Your task to perform on an android device: open app "Roku - Official Remote Control" (install if not already installed) Image 0: 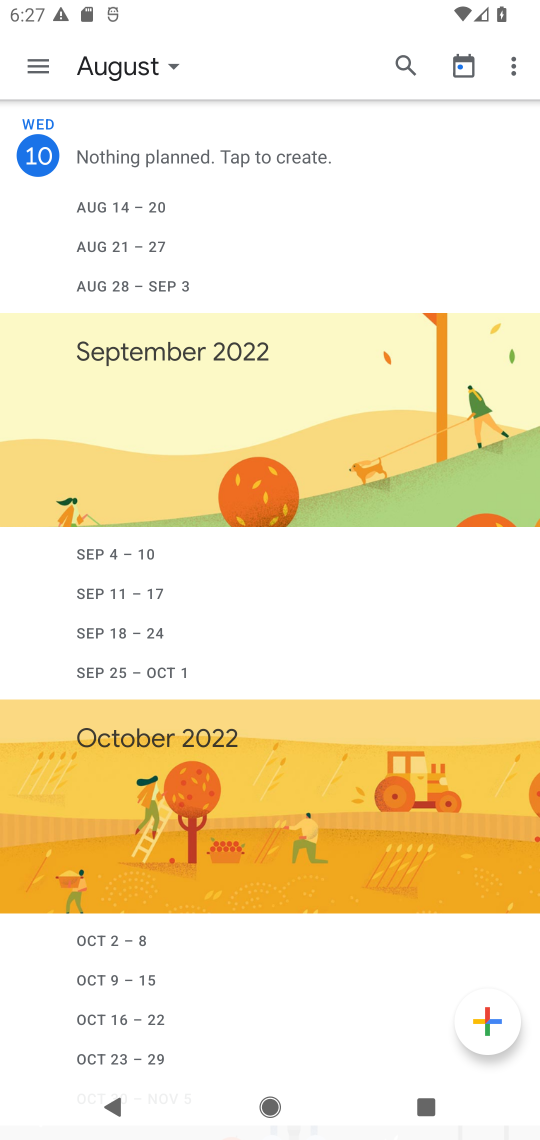
Step 0: press home button
Your task to perform on an android device: open app "Roku - Official Remote Control" (install if not already installed) Image 1: 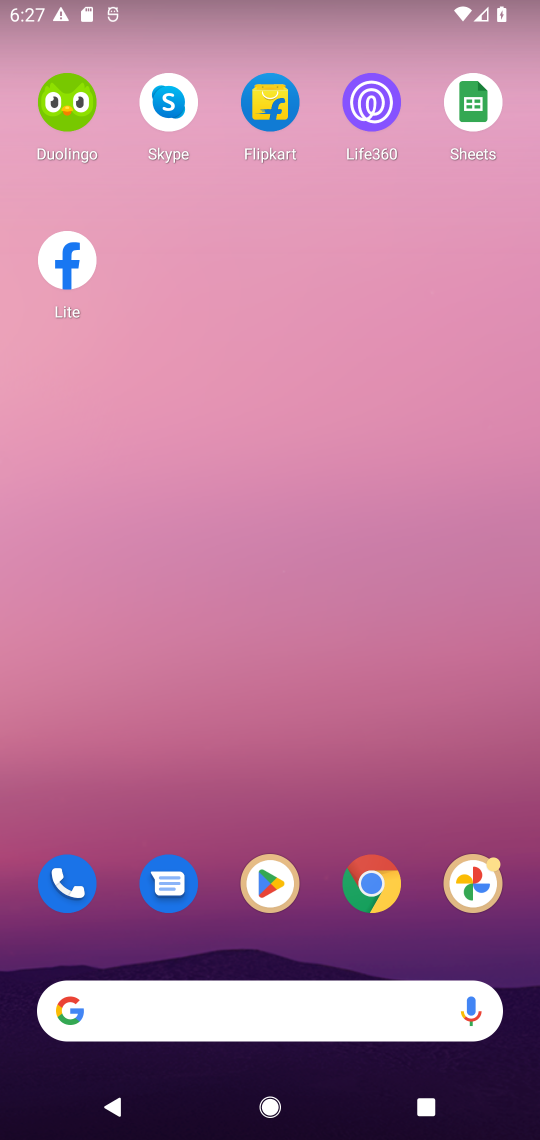
Step 1: press home button
Your task to perform on an android device: open app "Roku - Official Remote Control" (install if not already installed) Image 2: 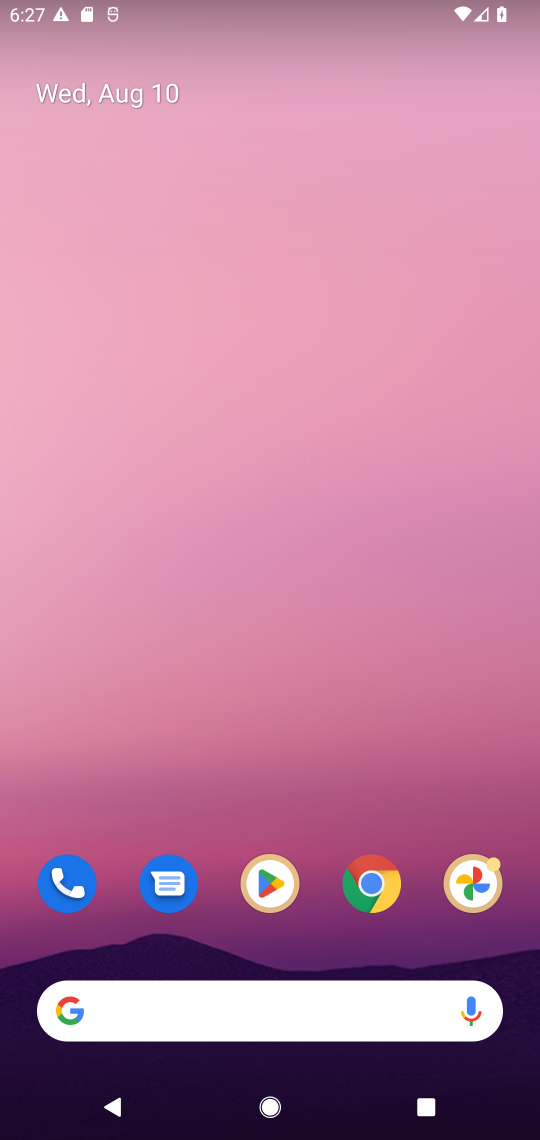
Step 2: click (283, 231)
Your task to perform on an android device: open app "Roku - Official Remote Control" (install if not already installed) Image 3: 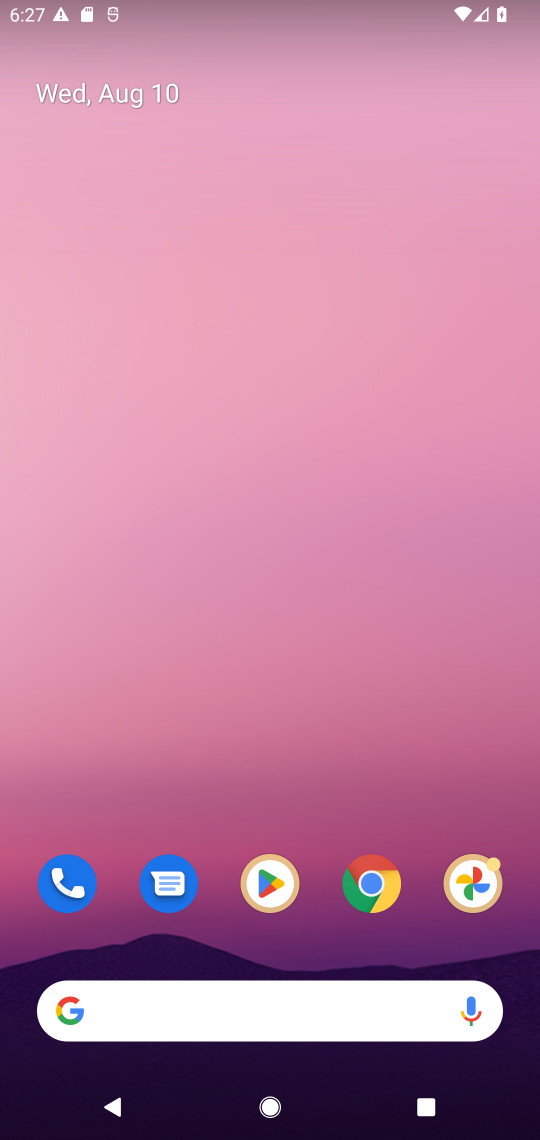
Step 3: click (241, 8)
Your task to perform on an android device: open app "Roku - Official Remote Control" (install if not already installed) Image 4: 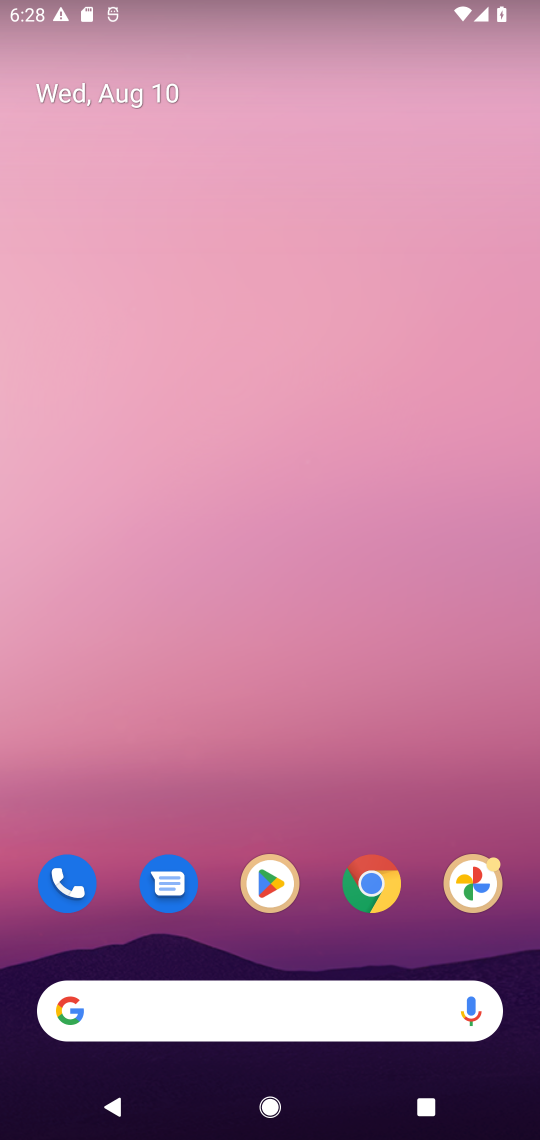
Step 4: drag from (334, 845) to (311, 205)
Your task to perform on an android device: open app "Roku - Official Remote Control" (install if not already installed) Image 5: 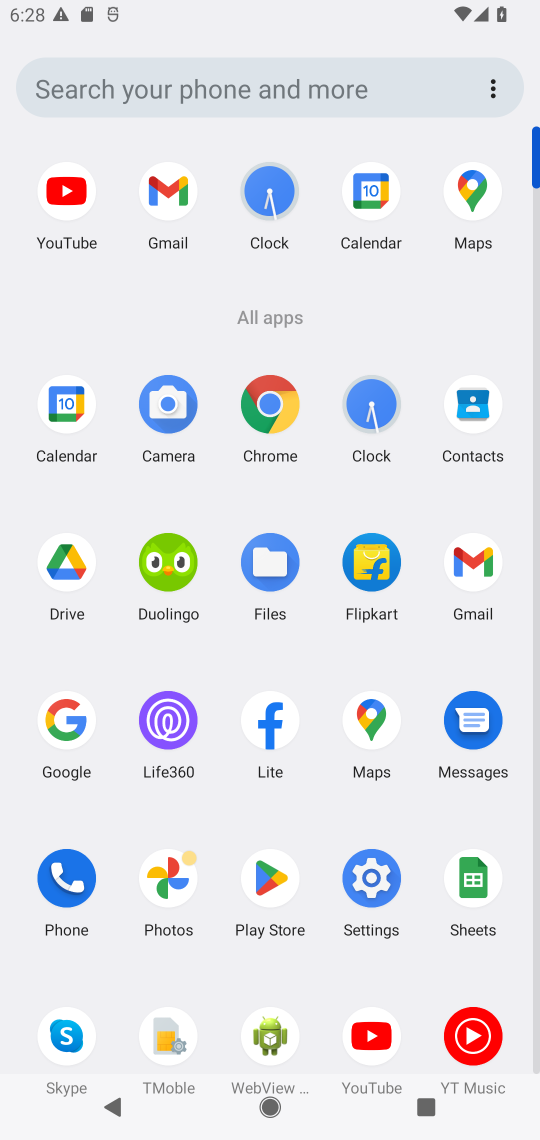
Step 5: click (279, 865)
Your task to perform on an android device: open app "Roku - Official Remote Control" (install if not already installed) Image 6: 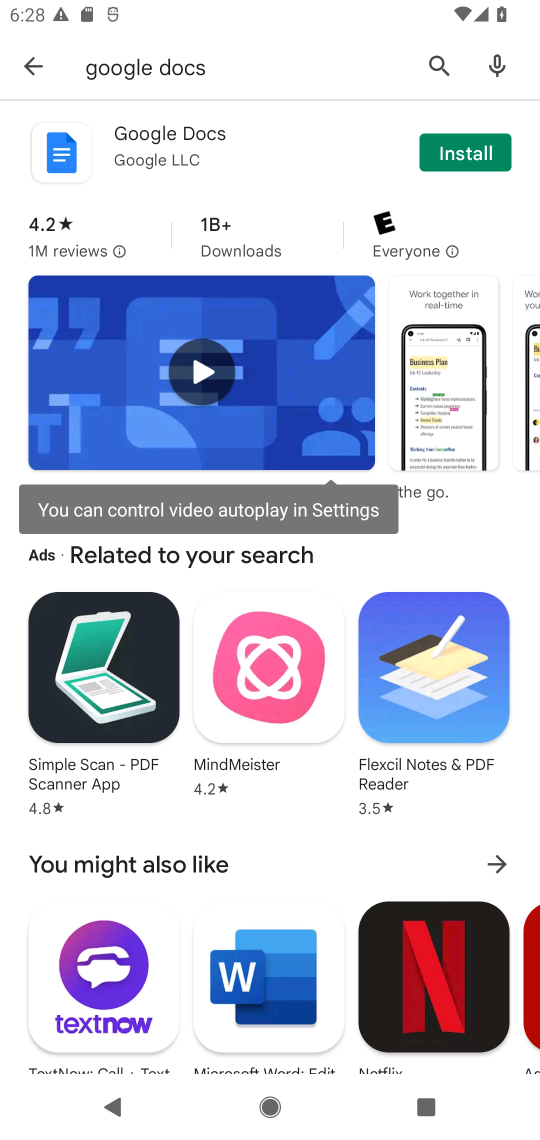
Step 6: click (438, 61)
Your task to perform on an android device: open app "Roku - Official Remote Control" (install if not already installed) Image 7: 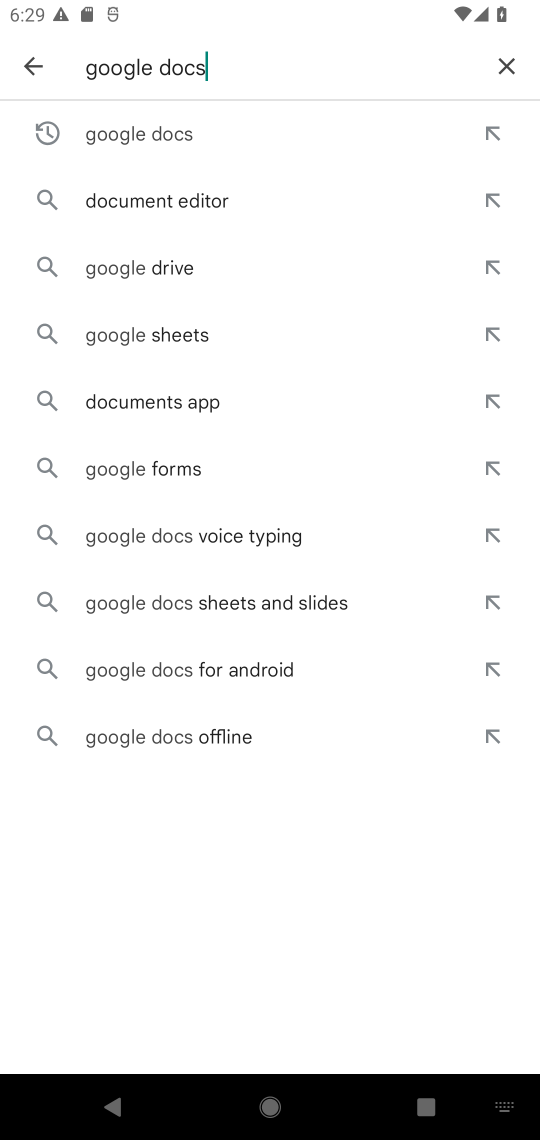
Step 7: click (507, 57)
Your task to perform on an android device: open app "Roku - Official Remote Control" (install if not already installed) Image 8: 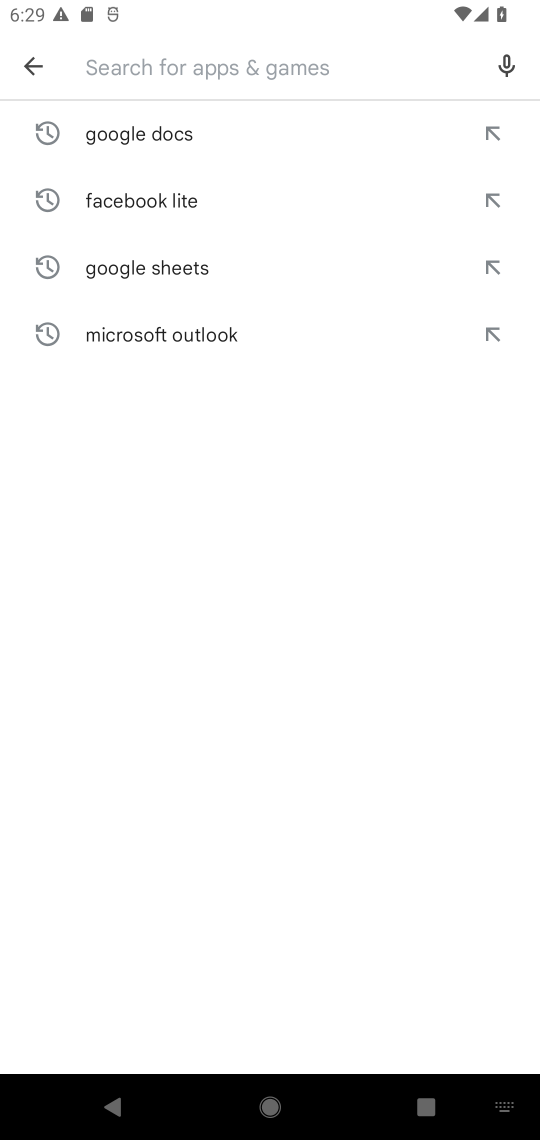
Step 8: type ""
Your task to perform on an android device: open app "Roku - Official Remote Control" (install if not already installed) Image 9: 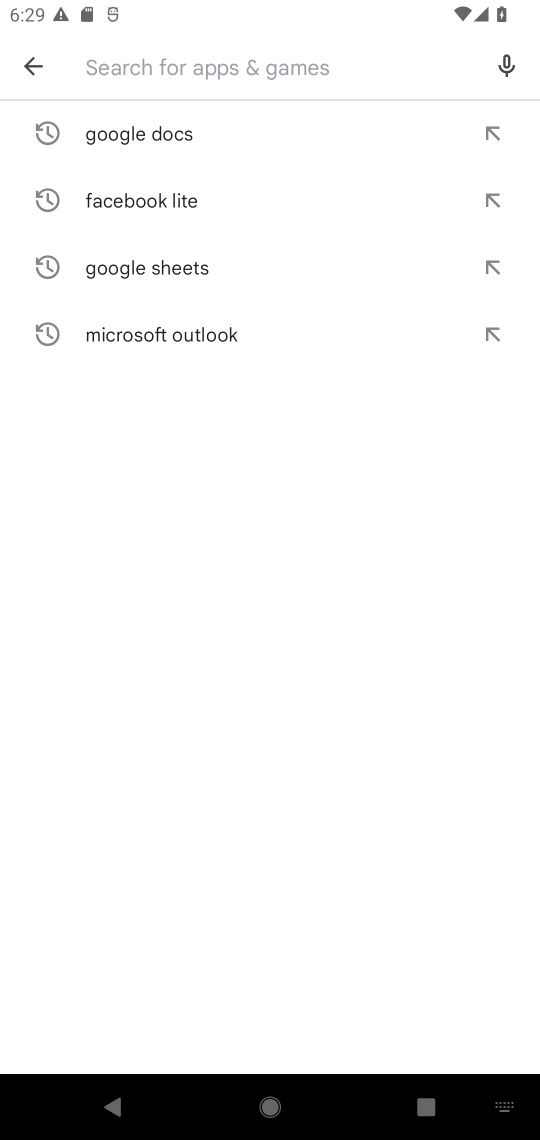
Step 9: type "Roku - Official Remote Control"
Your task to perform on an android device: open app "Roku - Official Remote Control" (install if not already installed) Image 10: 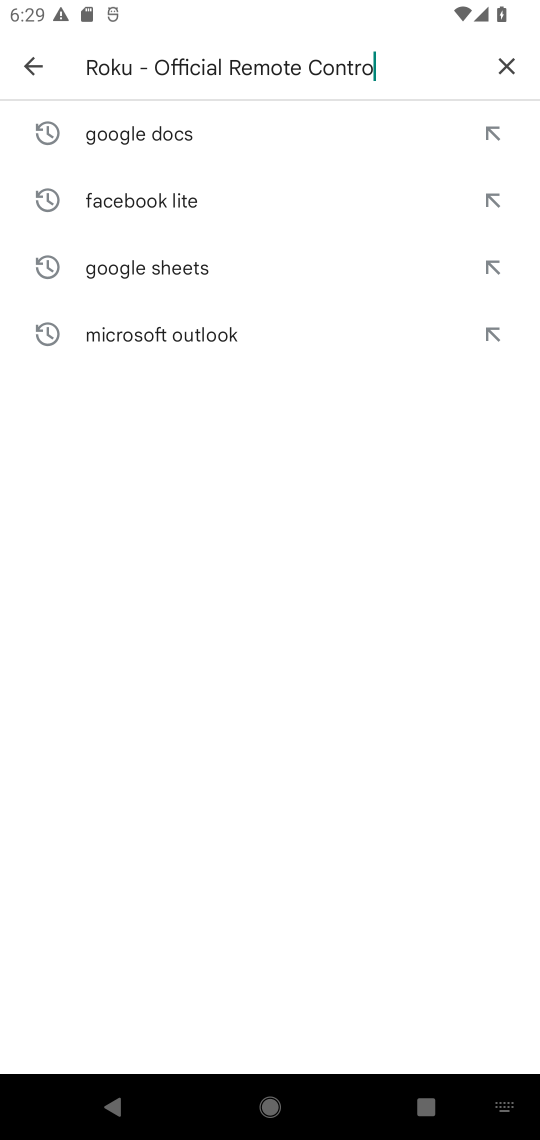
Step 10: type ""
Your task to perform on an android device: open app "Roku - Official Remote Control" (install if not already installed) Image 11: 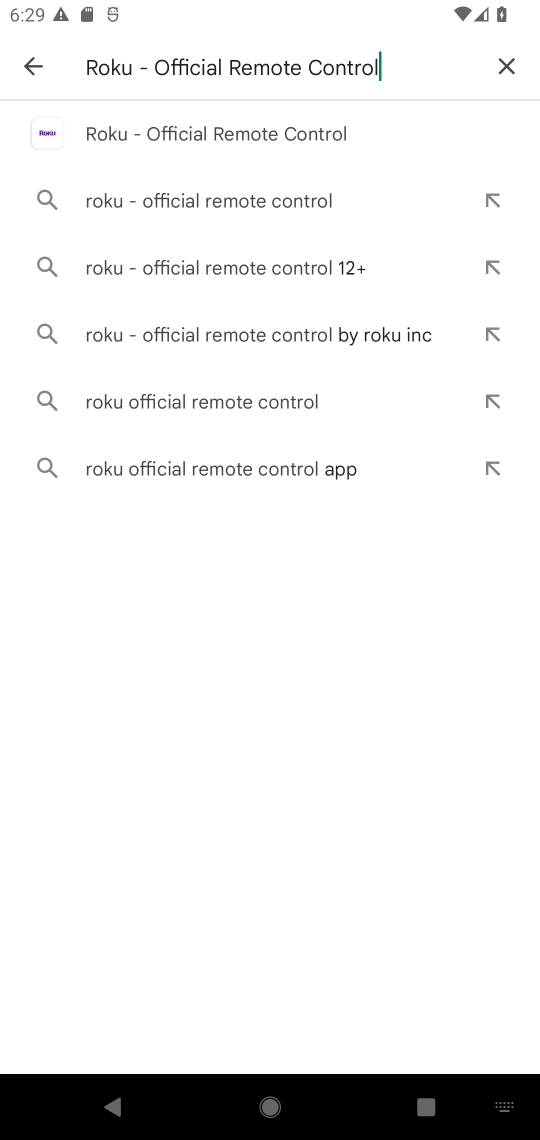
Step 11: click (160, 136)
Your task to perform on an android device: open app "Roku - Official Remote Control" (install if not already installed) Image 12: 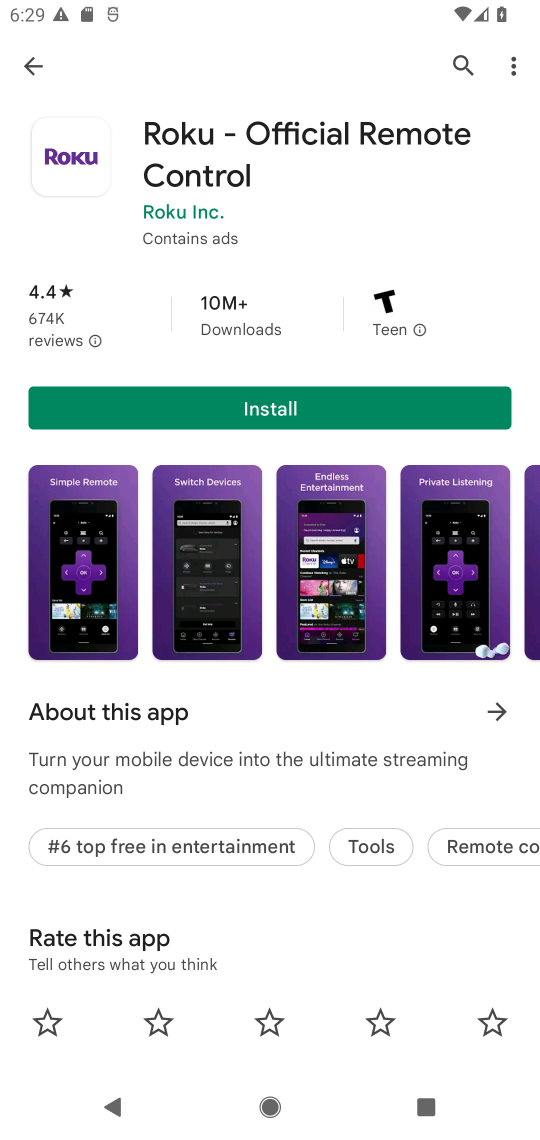
Step 12: click (257, 413)
Your task to perform on an android device: open app "Roku - Official Remote Control" (install if not already installed) Image 13: 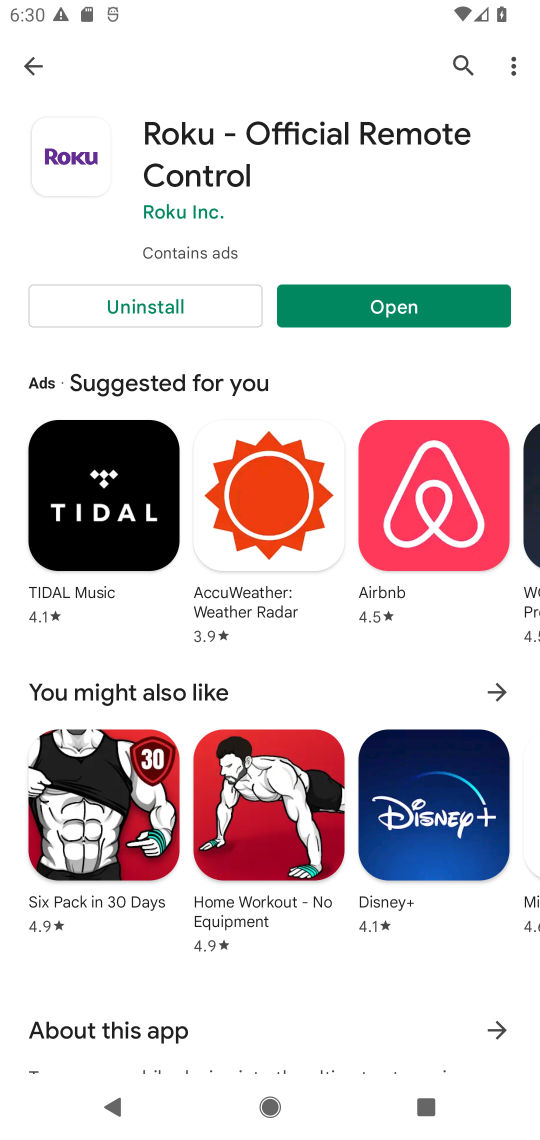
Step 13: click (394, 310)
Your task to perform on an android device: open app "Roku - Official Remote Control" (install if not already installed) Image 14: 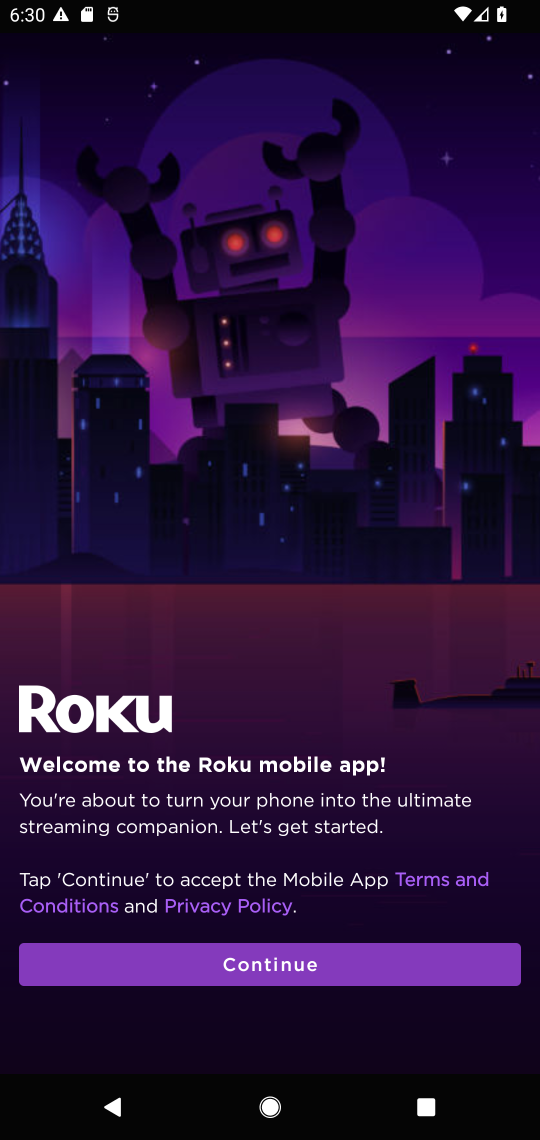
Step 14: task complete